Your task to perform on an android device: Check the news Image 0: 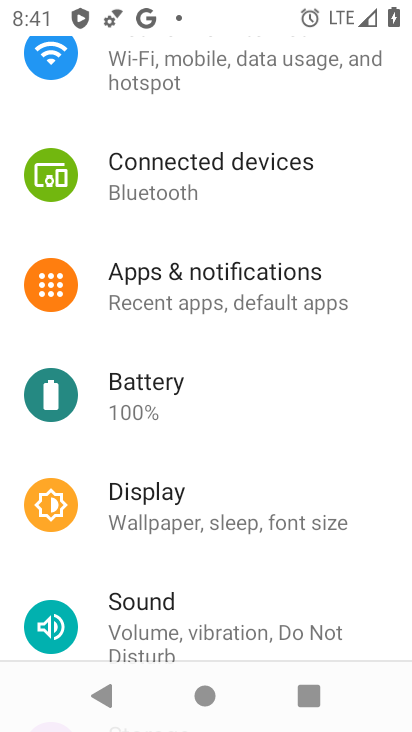
Step 0: press home button
Your task to perform on an android device: Check the news Image 1: 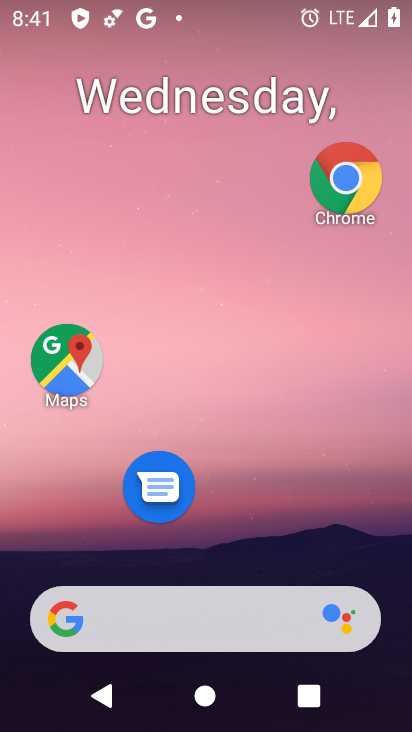
Step 1: drag from (241, 649) to (290, 160)
Your task to perform on an android device: Check the news Image 2: 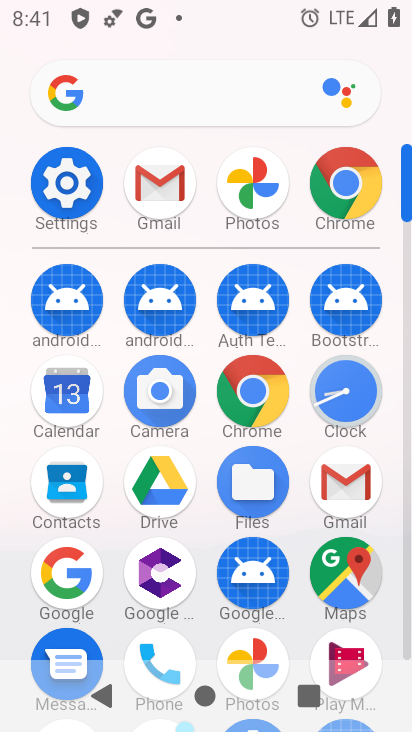
Step 2: click (329, 199)
Your task to perform on an android device: Check the news Image 3: 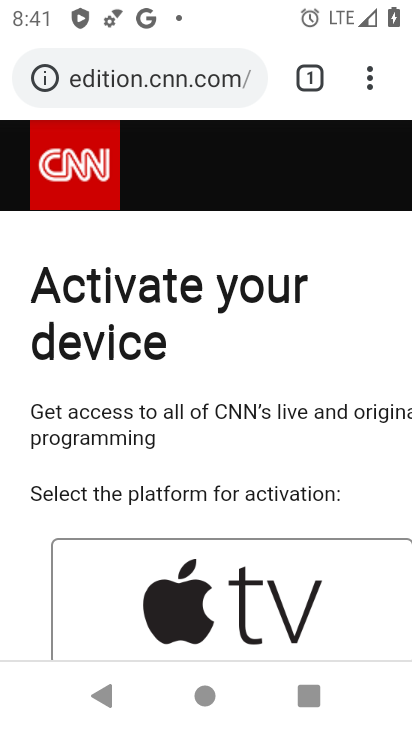
Step 3: press home button
Your task to perform on an android device: Check the news Image 4: 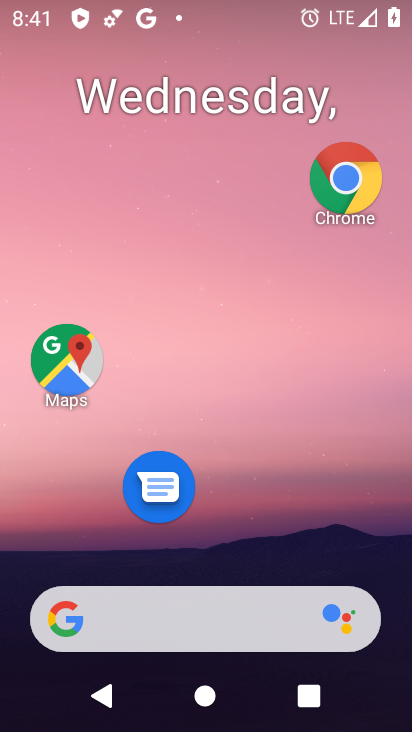
Step 4: drag from (137, 567) to (273, 111)
Your task to perform on an android device: Check the news Image 5: 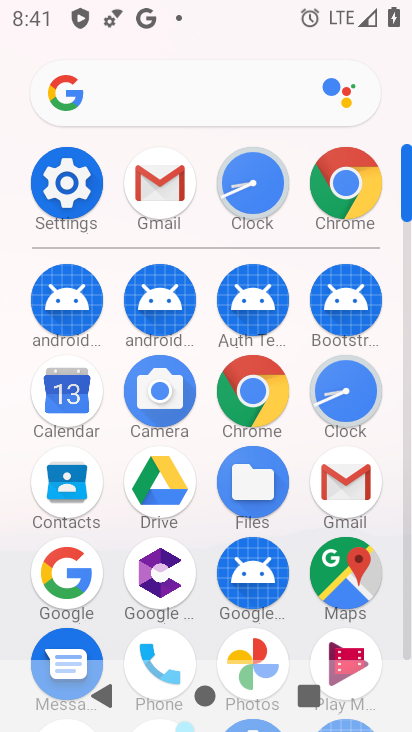
Step 5: click (79, 569)
Your task to perform on an android device: Check the news Image 6: 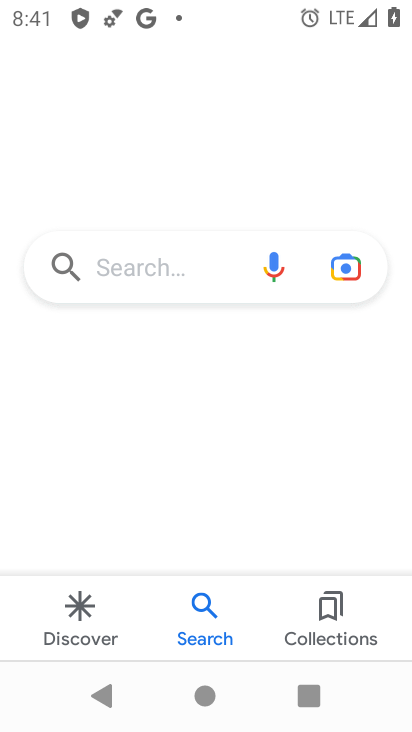
Step 6: click (143, 266)
Your task to perform on an android device: Check the news Image 7: 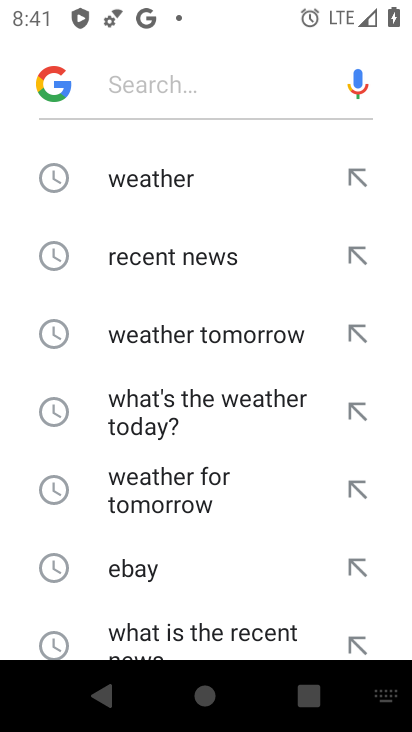
Step 7: click (159, 265)
Your task to perform on an android device: Check the news Image 8: 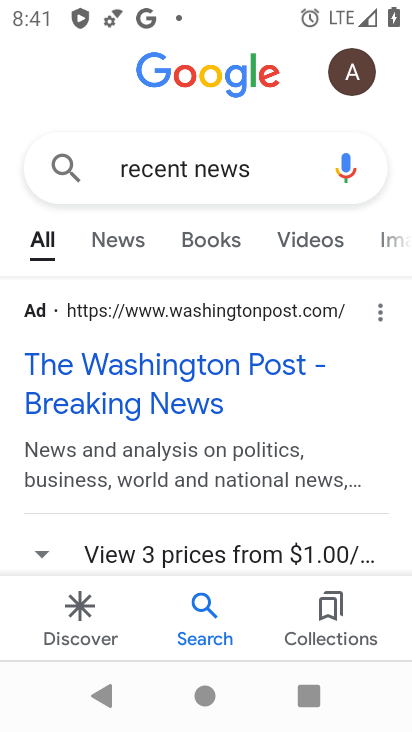
Step 8: click (122, 237)
Your task to perform on an android device: Check the news Image 9: 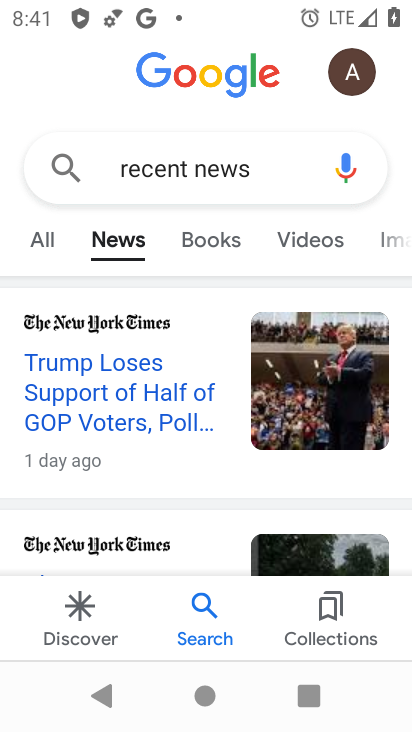
Step 9: task complete